Your task to perform on an android device: Open CNN.com Image 0: 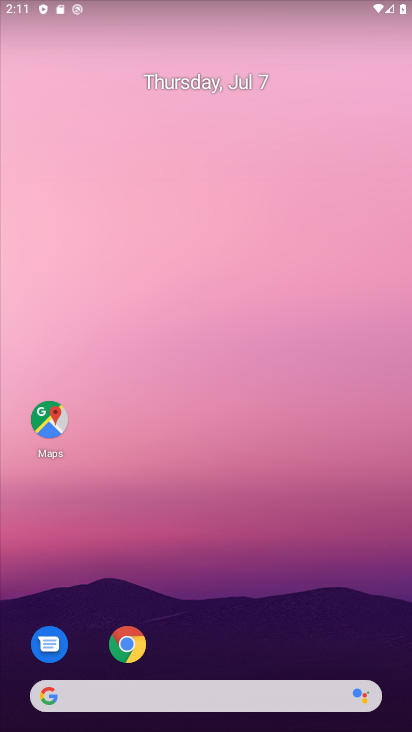
Step 0: press home button
Your task to perform on an android device: Open CNN.com Image 1: 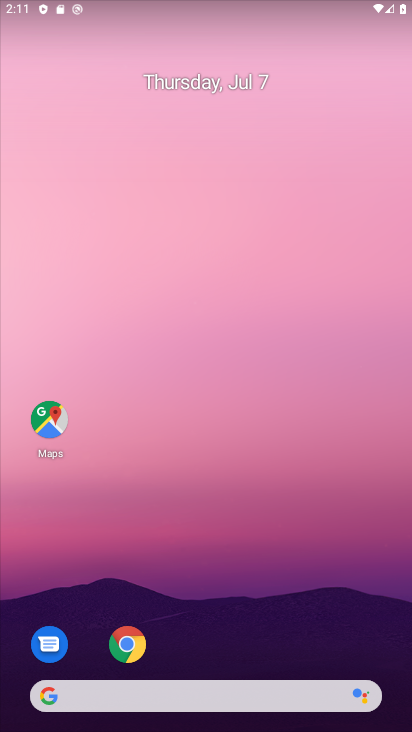
Step 1: click (40, 695)
Your task to perform on an android device: Open CNN.com Image 2: 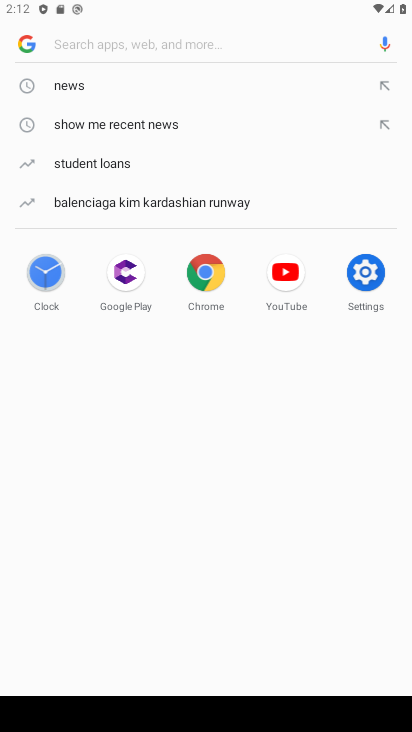
Step 2: type "CNN.com"
Your task to perform on an android device: Open CNN.com Image 3: 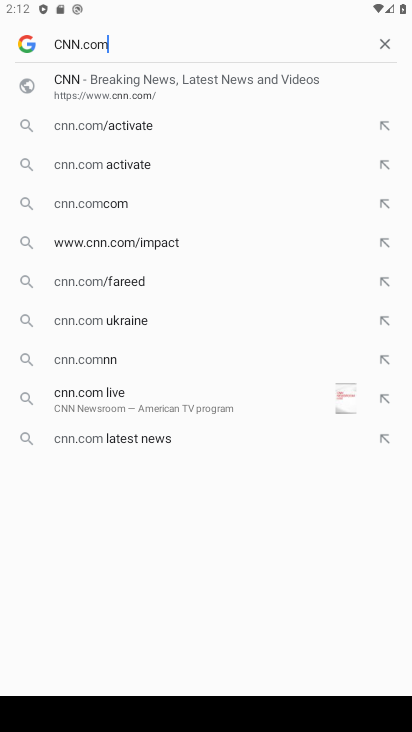
Step 3: click (62, 77)
Your task to perform on an android device: Open CNN.com Image 4: 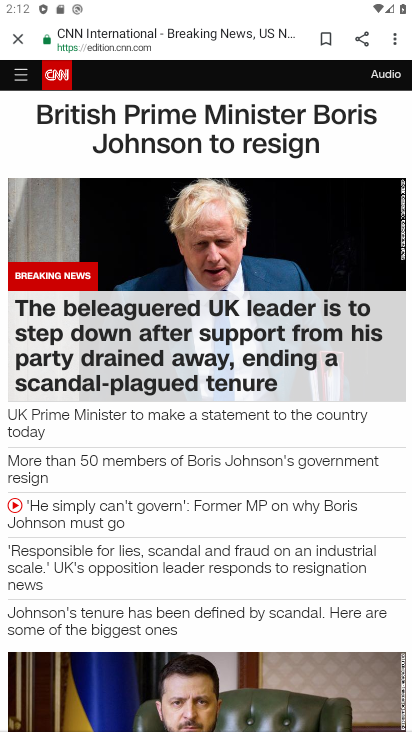
Step 4: task complete